Your task to perform on an android device: snooze an email in the gmail app Image 0: 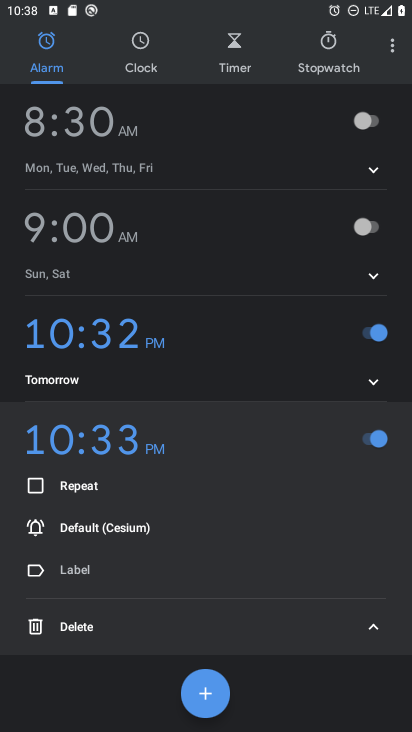
Step 0: press home button
Your task to perform on an android device: snooze an email in the gmail app Image 1: 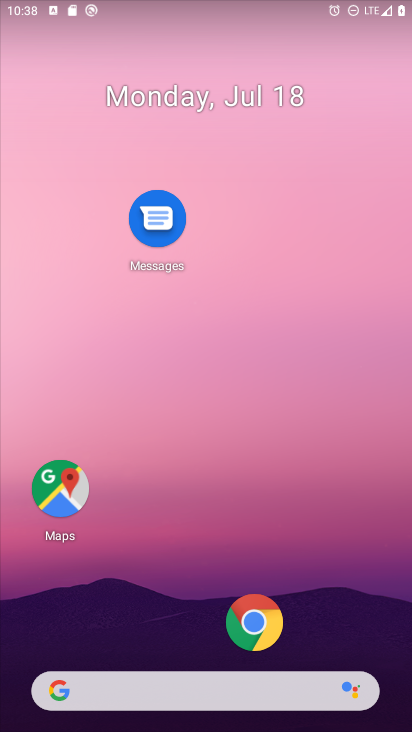
Step 1: drag from (276, 557) to (403, 15)
Your task to perform on an android device: snooze an email in the gmail app Image 2: 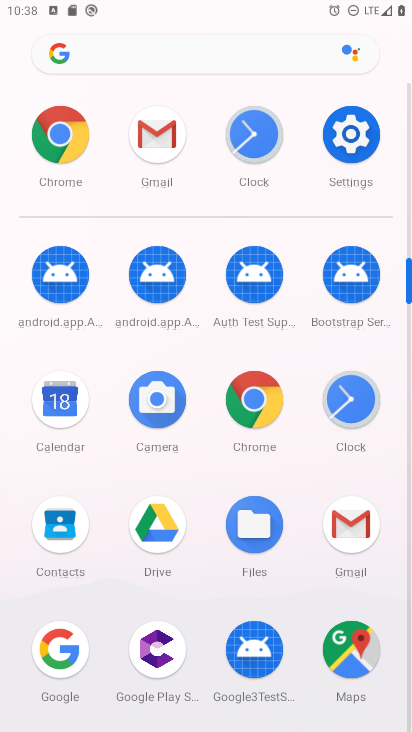
Step 2: click (348, 532)
Your task to perform on an android device: snooze an email in the gmail app Image 3: 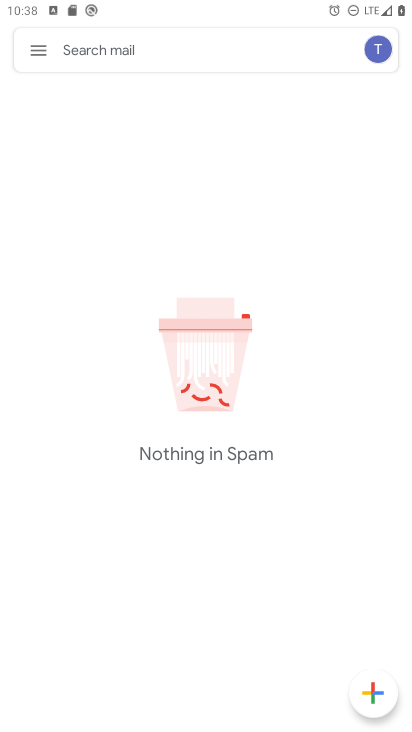
Step 3: click (39, 59)
Your task to perform on an android device: snooze an email in the gmail app Image 4: 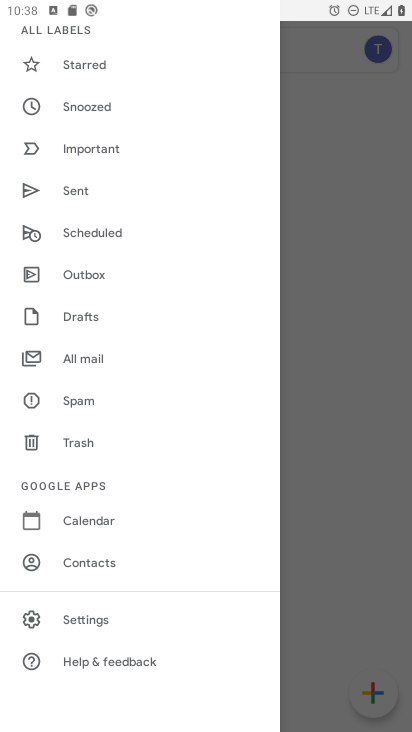
Step 4: click (107, 112)
Your task to perform on an android device: snooze an email in the gmail app Image 5: 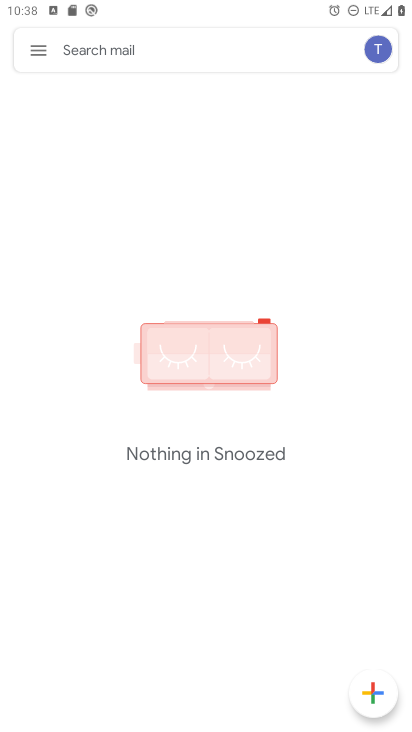
Step 5: click (40, 53)
Your task to perform on an android device: snooze an email in the gmail app Image 6: 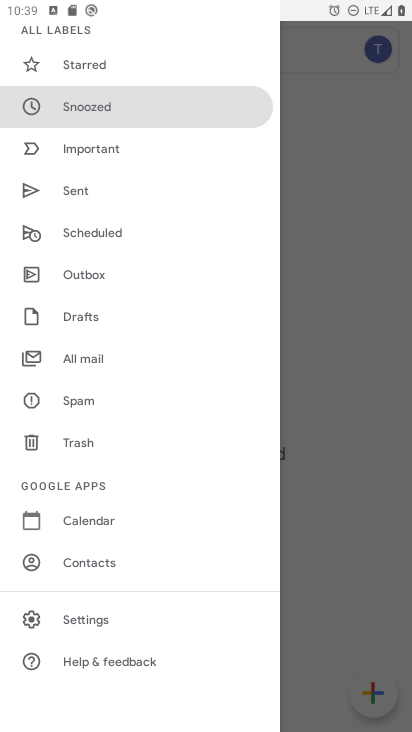
Step 6: click (104, 364)
Your task to perform on an android device: snooze an email in the gmail app Image 7: 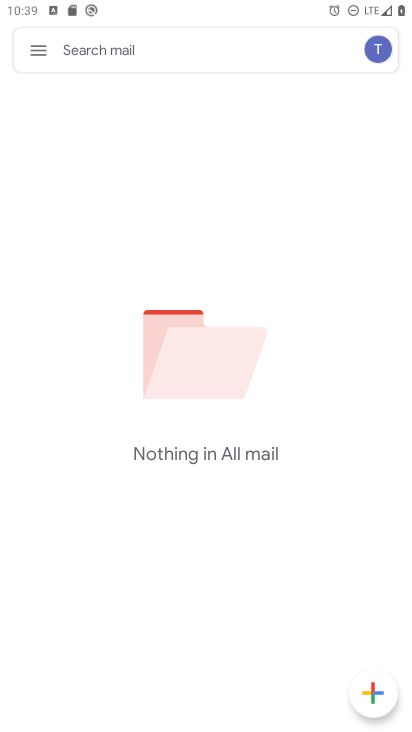
Step 7: task complete